Your task to perform on an android device: open the mobile data screen to see how much data has been used Image 0: 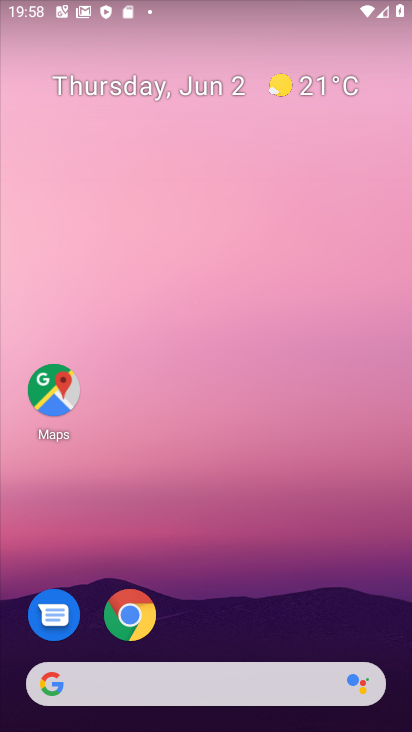
Step 0: drag from (303, 626) to (247, 214)
Your task to perform on an android device: open the mobile data screen to see how much data has been used Image 1: 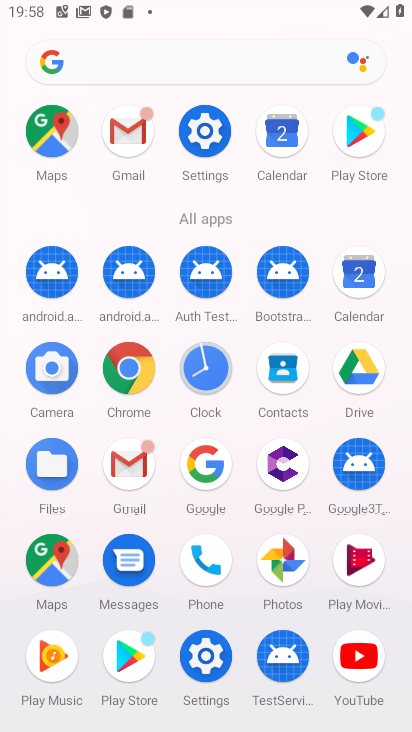
Step 1: click (185, 138)
Your task to perform on an android device: open the mobile data screen to see how much data has been used Image 2: 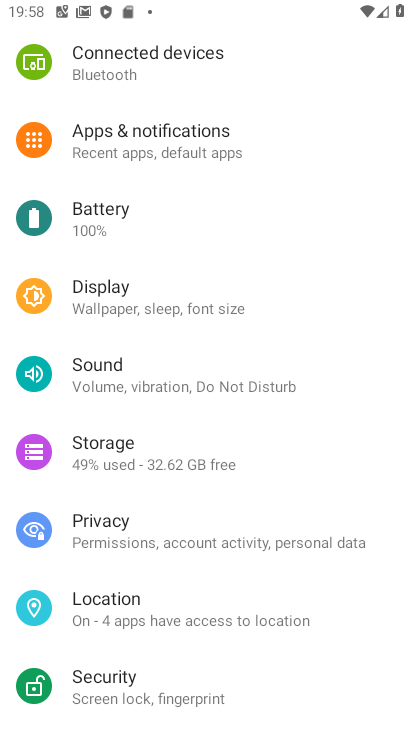
Step 2: drag from (160, 115) to (318, 466)
Your task to perform on an android device: open the mobile data screen to see how much data has been used Image 3: 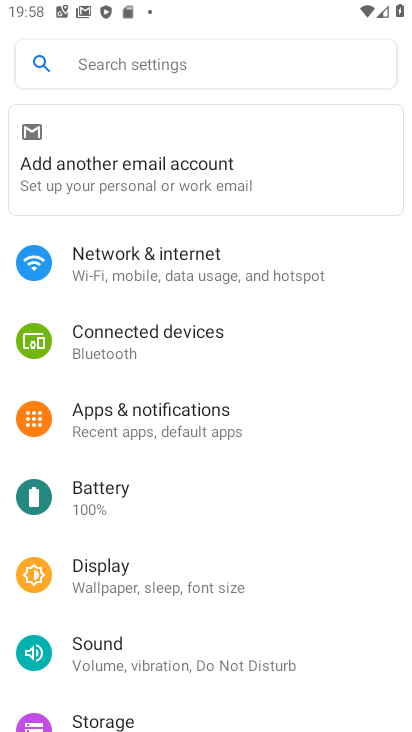
Step 3: click (260, 279)
Your task to perform on an android device: open the mobile data screen to see how much data has been used Image 4: 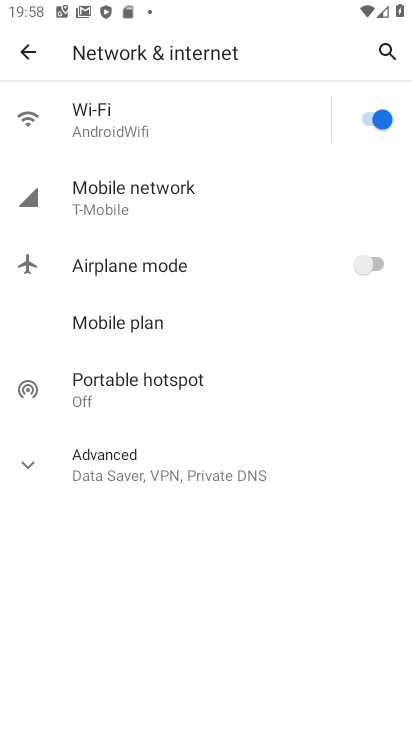
Step 4: click (175, 207)
Your task to perform on an android device: open the mobile data screen to see how much data has been used Image 5: 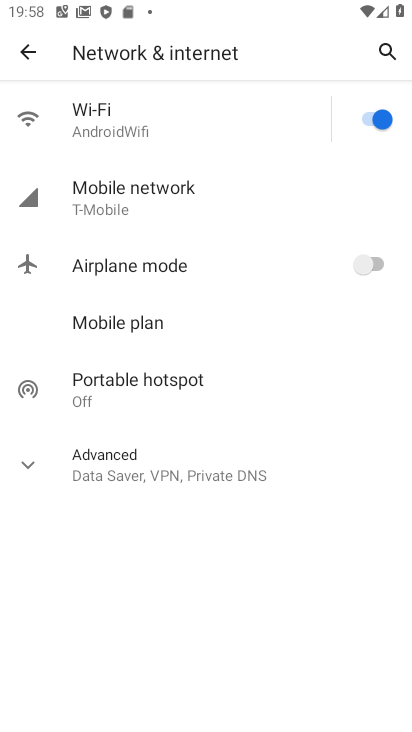
Step 5: task complete